Your task to perform on an android device: turn notification dots on Image 0: 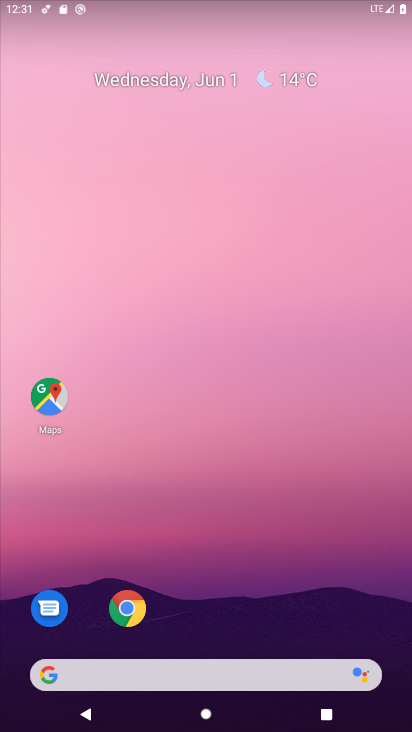
Step 0: drag from (189, 618) to (216, 259)
Your task to perform on an android device: turn notification dots on Image 1: 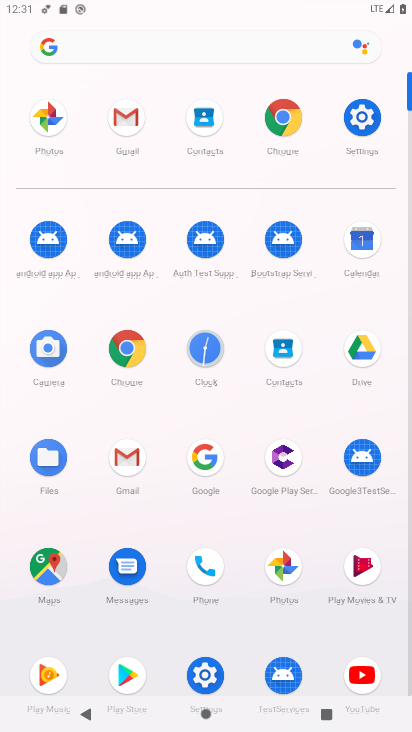
Step 1: click (367, 117)
Your task to perform on an android device: turn notification dots on Image 2: 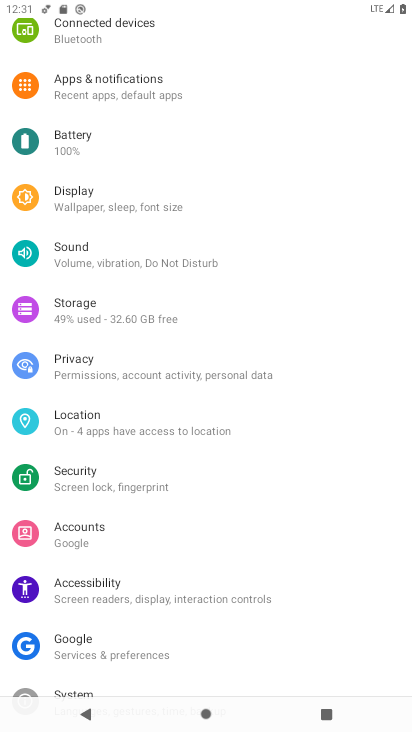
Step 2: click (125, 88)
Your task to perform on an android device: turn notification dots on Image 3: 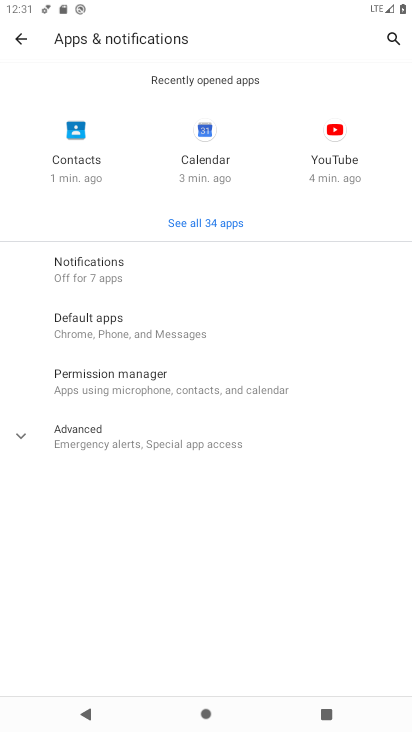
Step 3: click (100, 277)
Your task to perform on an android device: turn notification dots on Image 4: 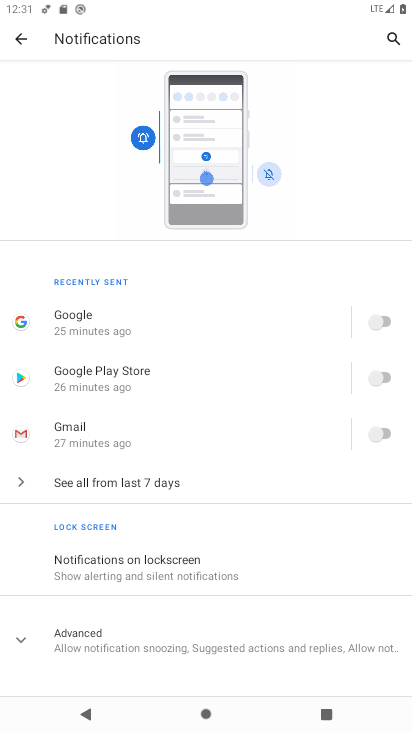
Step 4: drag from (163, 592) to (159, 455)
Your task to perform on an android device: turn notification dots on Image 5: 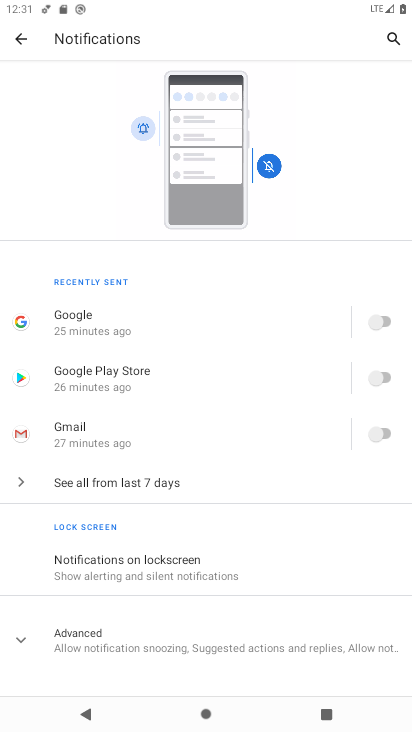
Step 5: click (103, 632)
Your task to perform on an android device: turn notification dots on Image 6: 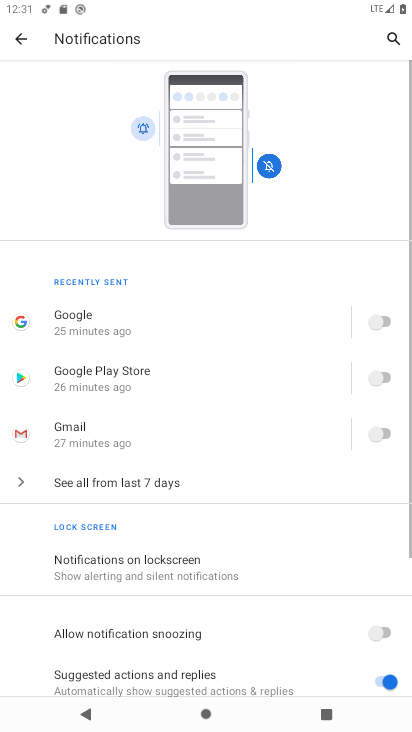
Step 6: task complete